Your task to perform on an android device: Go to notification settings Image 0: 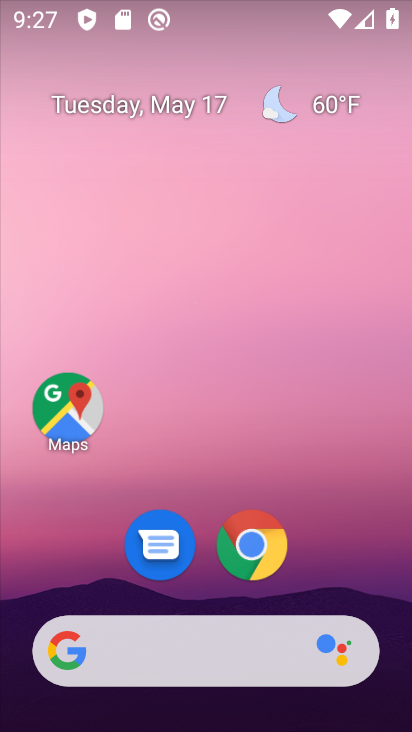
Step 0: drag from (182, 614) to (226, 116)
Your task to perform on an android device: Go to notification settings Image 1: 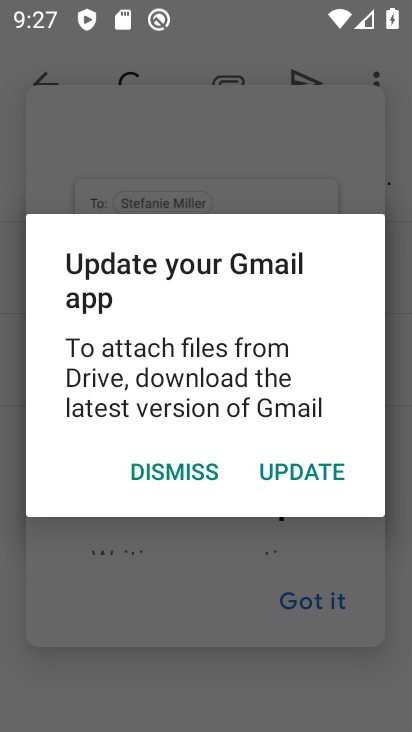
Step 1: click (184, 476)
Your task to perform on an android device: Go to notification settings Image 2: 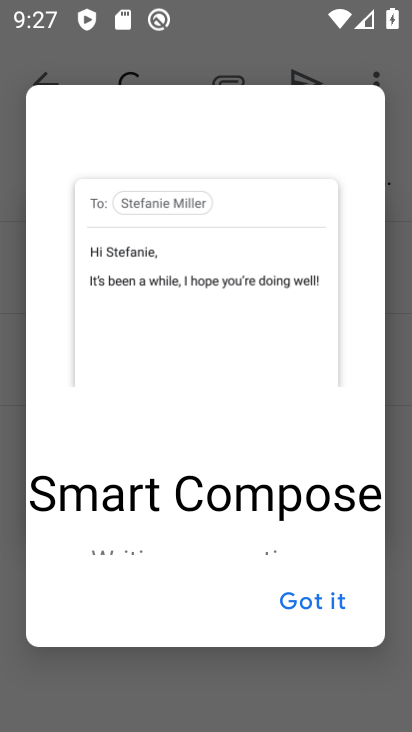
Step 2: press home button
Your task to perform on an android device: Go to notification settings Image 3: 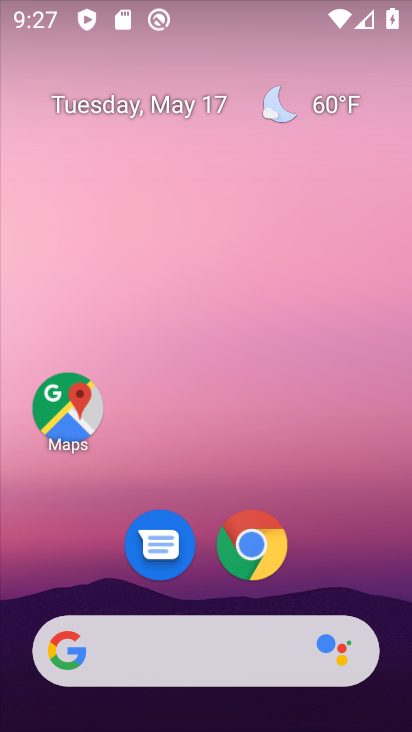
Step 3: drag from (221, 452) to (252, 234)
Your task to perform on an android device: Go to notification settings Image 4: 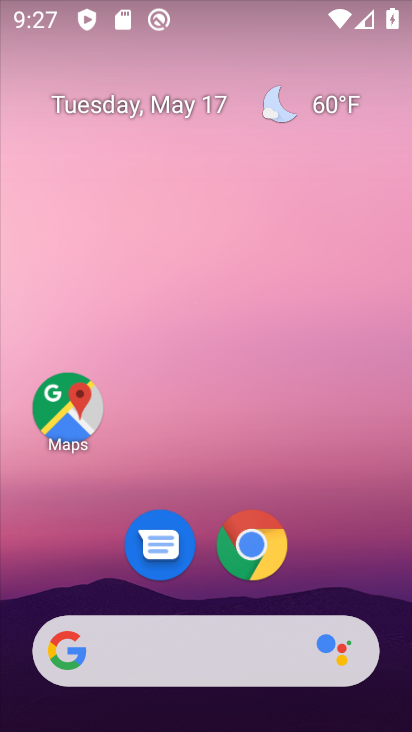
Step 4: drag from (191, 610) to (230, 124)
Your task to perform on an android device: Go to notification settings Image 5: 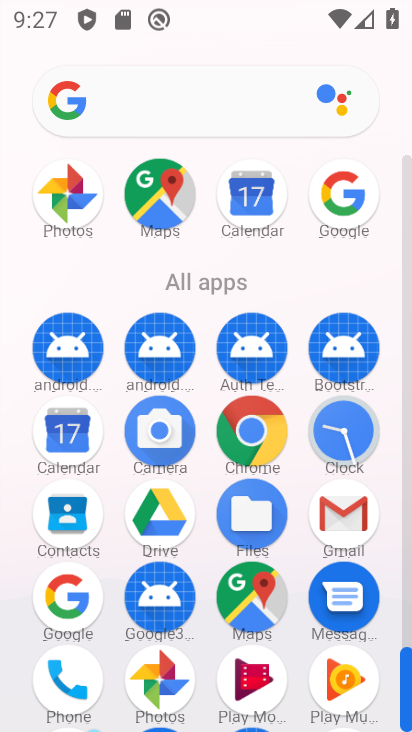
Step 5: drag from (112, 562) to (157, 231)
Your task to perform on an android device: Go to notification settings Image 6: 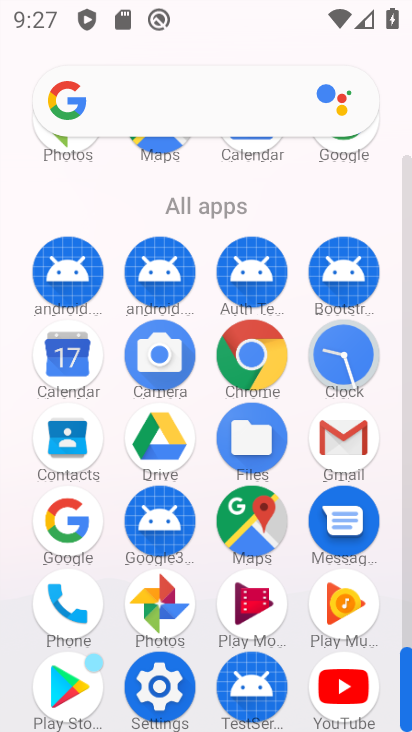
Step 6: drag from (203, 568) to (204, 307)
Your task to perform on an android device: Go to notification settings Image 7: 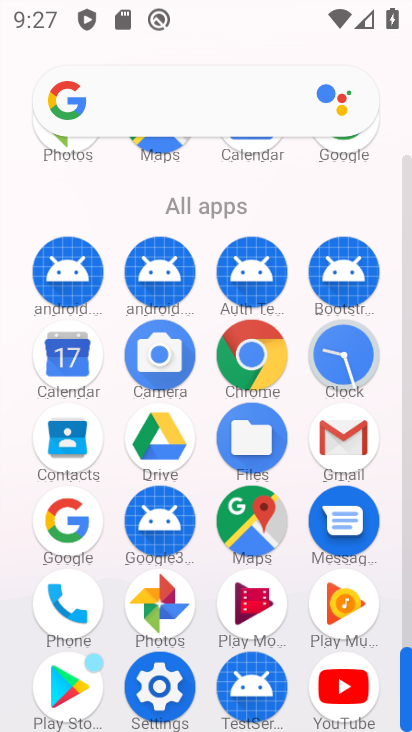
Step 7: click (156, 689)
Your task to perform on an android device: Go to notification settings Image 8: 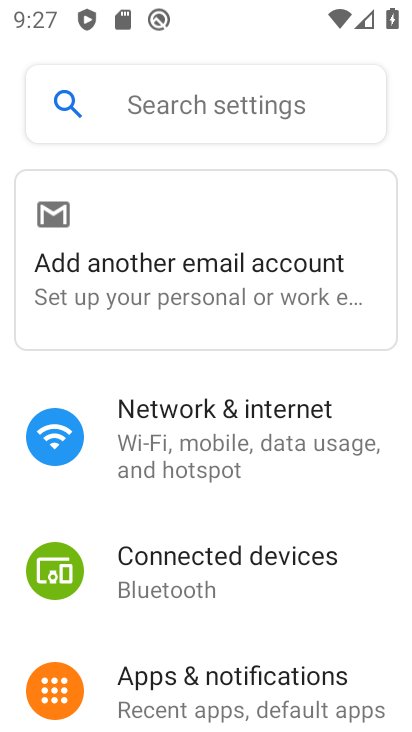
Step 8: task complete